Your task to perform on an android device: turn on the 24-hour format for clock Image 0: 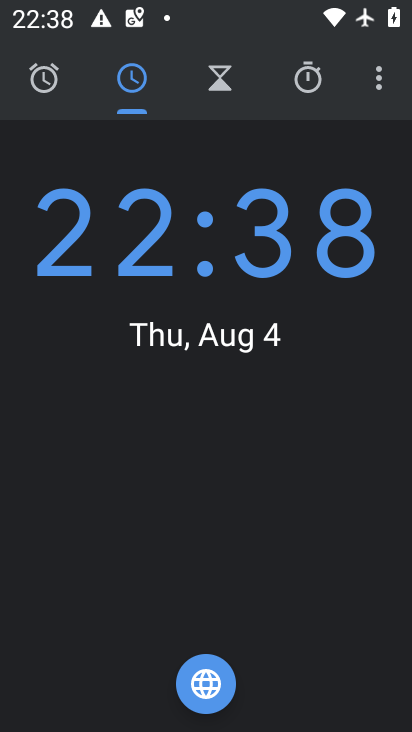
Step 0: press home button
Your task to perform on an android device: turn on the 24-hour format for clock Image 1: 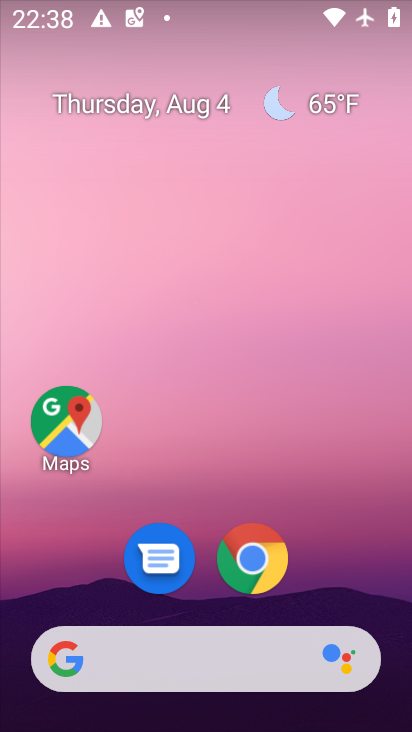
Step 1: drag from (366, 584) to (339, 69)
Your task to perform on an android device: turn on the 24-hour format for clock Image 2: 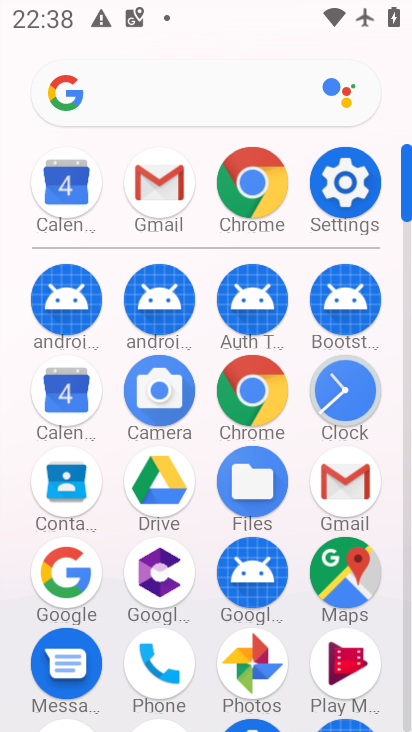
Step 2: click (338, 398)
Your task to perform on an android device: turn on the 24-hour format for clock Image 3: 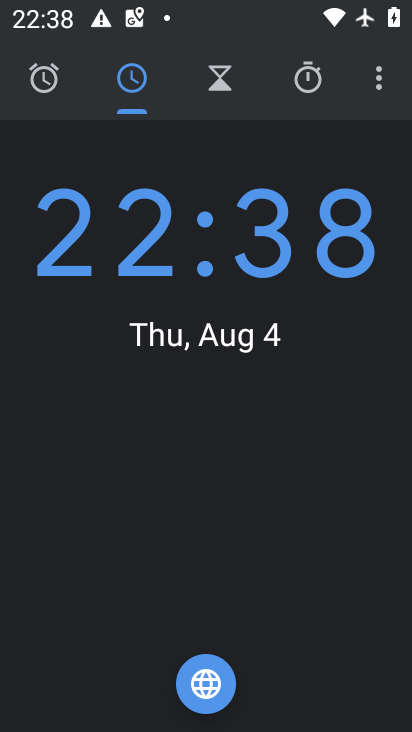
Step 3: click (380, 81)
Your task to perform on an android device: turn on the 24-hour format for clock Image 4: 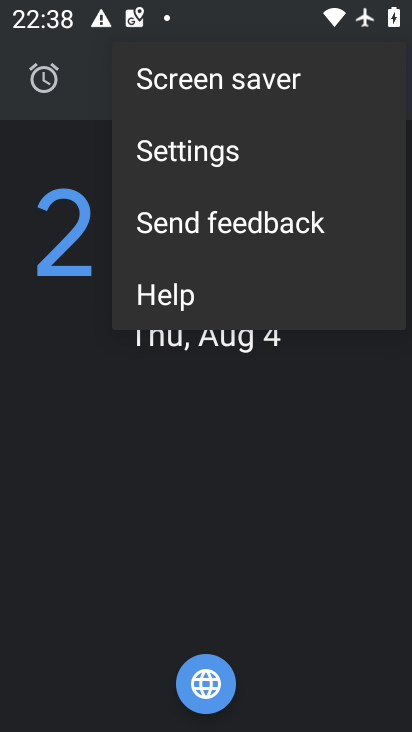
Step 4: click (199, 162)
Your task to perform on an android device: turn on the 24-hour format for clock Image 5: 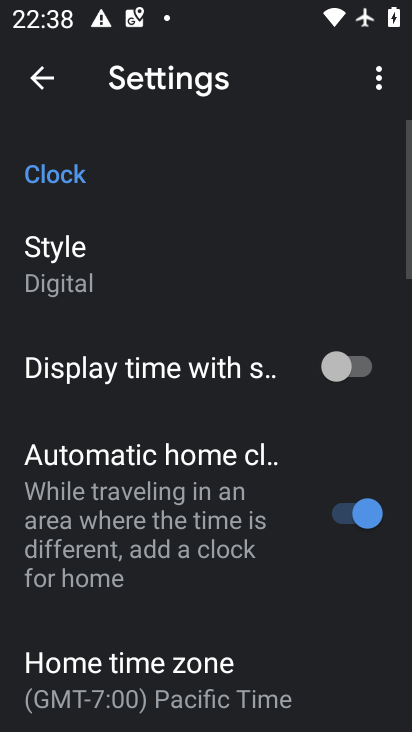
Step 5: drag from (183, 611) to (244, 141)
Your task to perform on an android device: turn on the 24-hour format for clock Image 6: 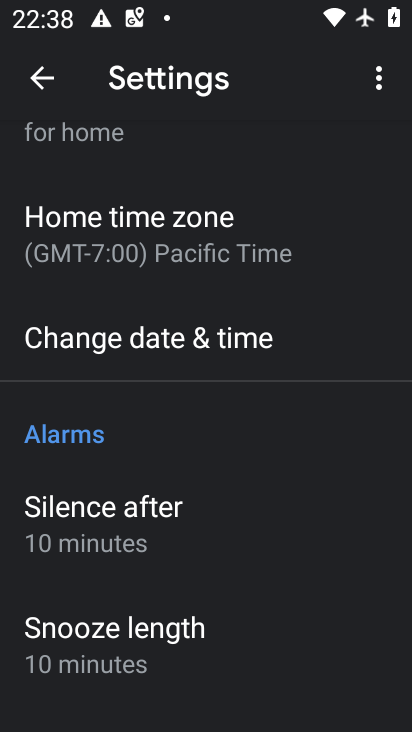
Step 6: click (226, 348)
Your task to perform on an android device: turn on the 24-hour format for clock Image 7: 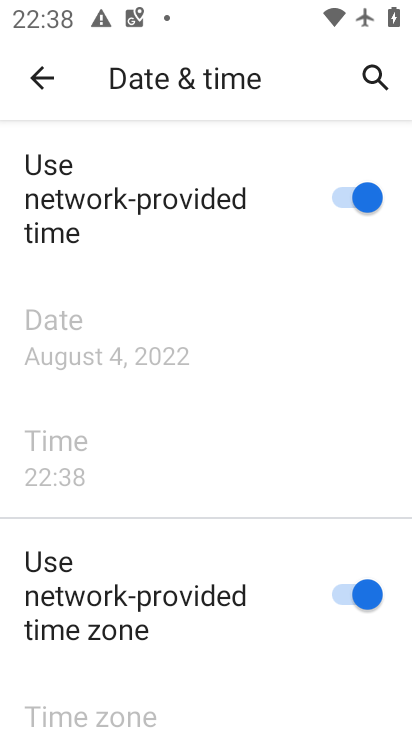
Step 7: task complete